Your task to perform on an android device: delete location history Image 0: 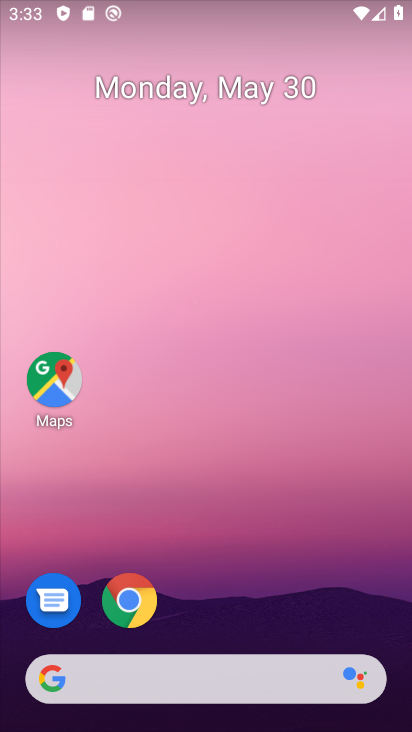
Step 0: drag from (255, 616) to (159, 97)
Your task to perform on an android device: delete location history Image 1: 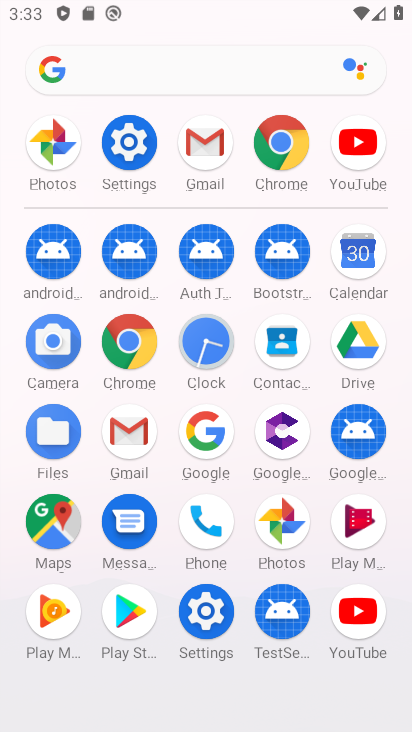
Step 1: click (62, 517)
Your task to perform on an android device: delete location history Image 2: 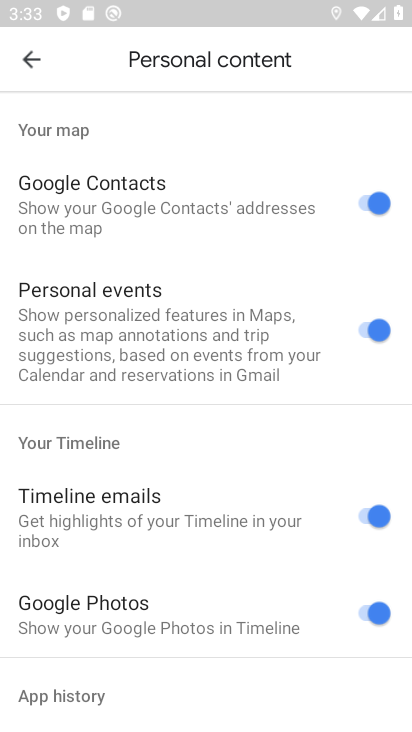
Step 2: click (170, 68)
Your task to perform on an android device: delete location history Image 3: 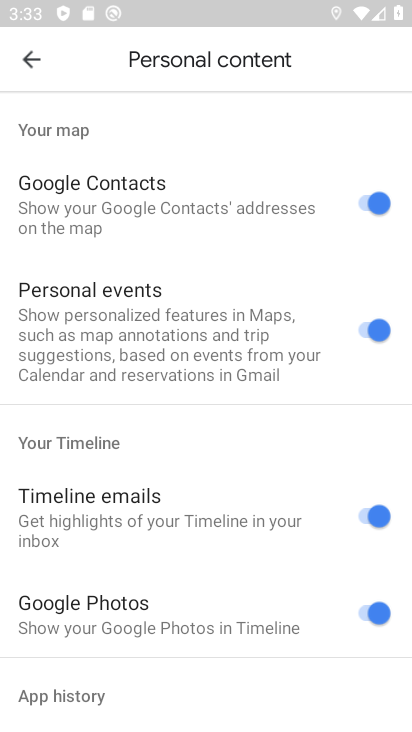
Step 3: drag from (169, 681) to (122, 45)
Your task to perform on an android device: delete location history Image 4: 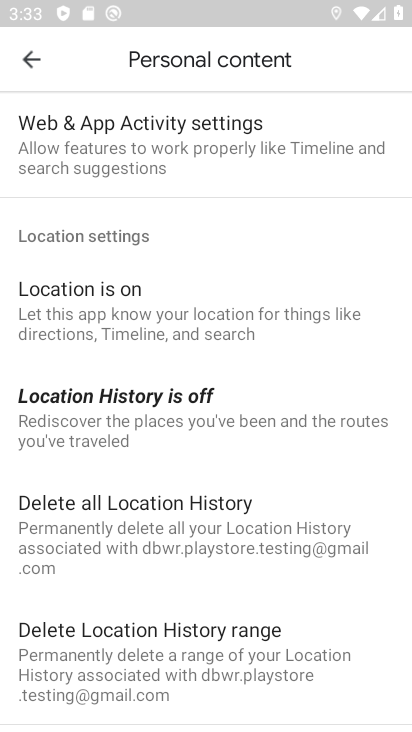
Step 4: click (227, 542)
Your task to perform on an android device: delete location history Image 5: 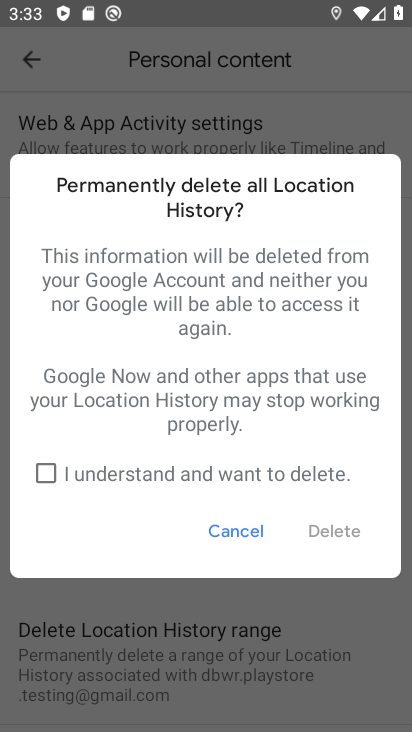
Step 5: click (205, 478)
Your task to perform on an android device: delete location history Image 6: 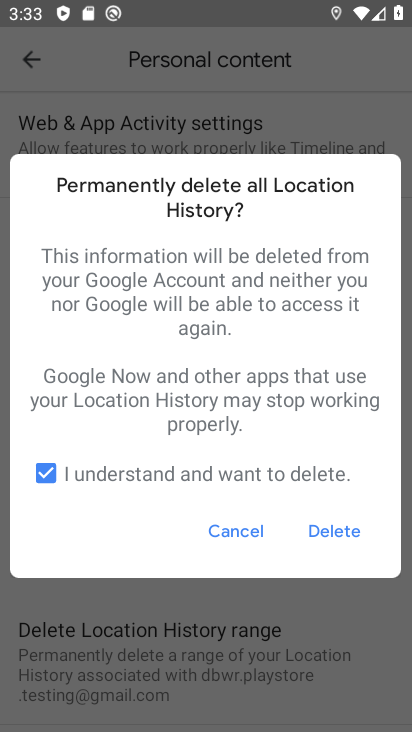
Step 6: click (311, 539)
Your task to perform on an android device: delete location history Image 7: 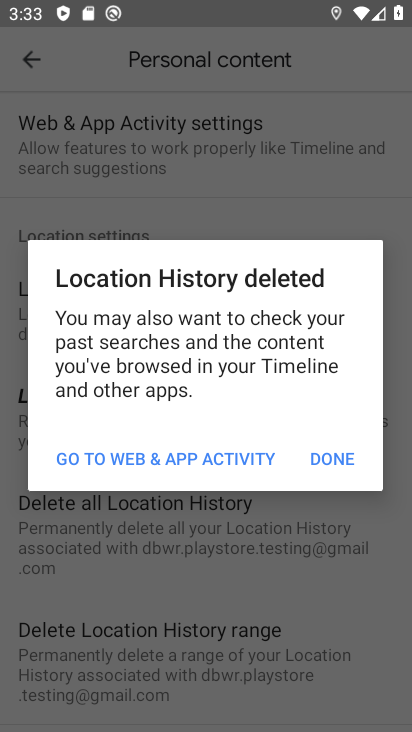
Step 7: click (357, 466)
Your task to perform on an android device: delete location history Image 8: 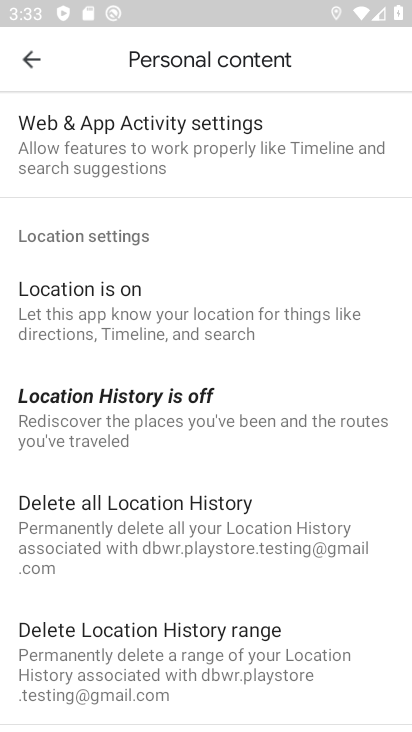
Step 8: task complete